Your task to perform on an android device: Play the last video I watched on Youtube Image 0: 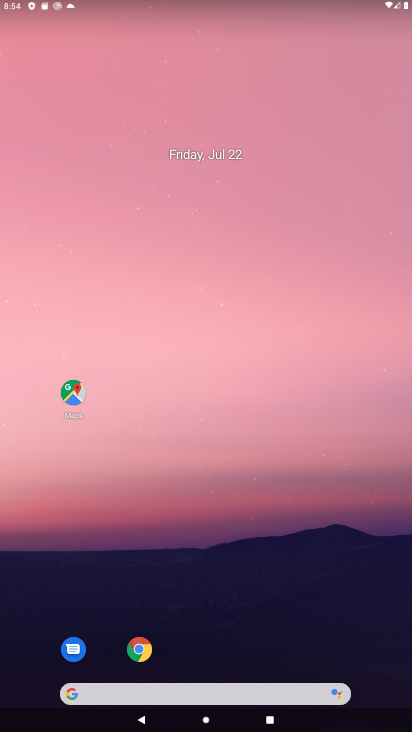
Step 0: drag from (335, 633) to (350, 165)
Your task to perform on an android device: Play the last video I watched on Youtube Image 1: 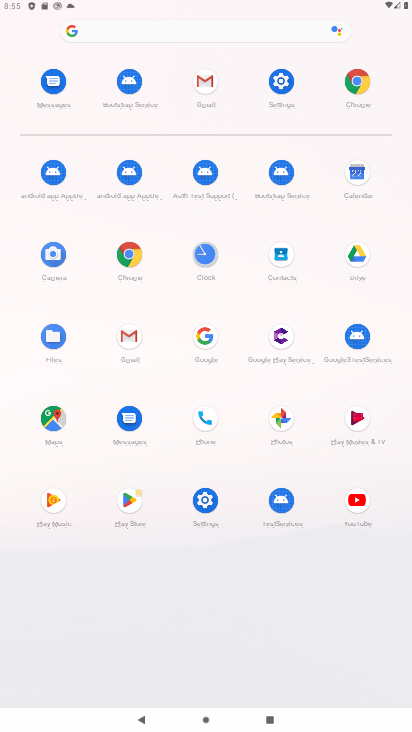
Step 1: click (358, 498)
Your task to perform on an android device: Play the last video I watched on Youtube Image 2: 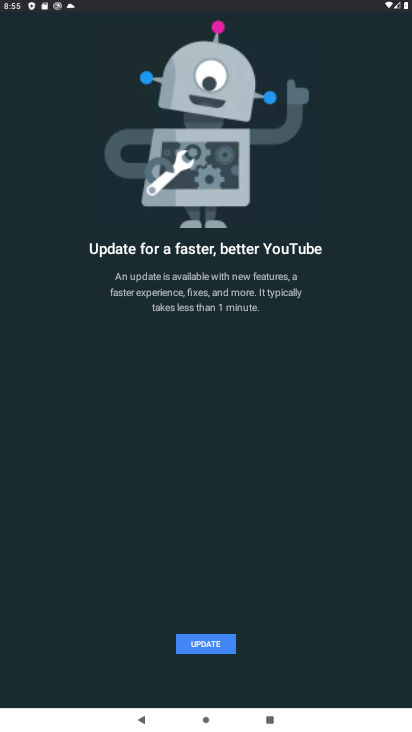
Step 2: task complete